Your task to perform on an android device: Go to Reddit.com Image 0: 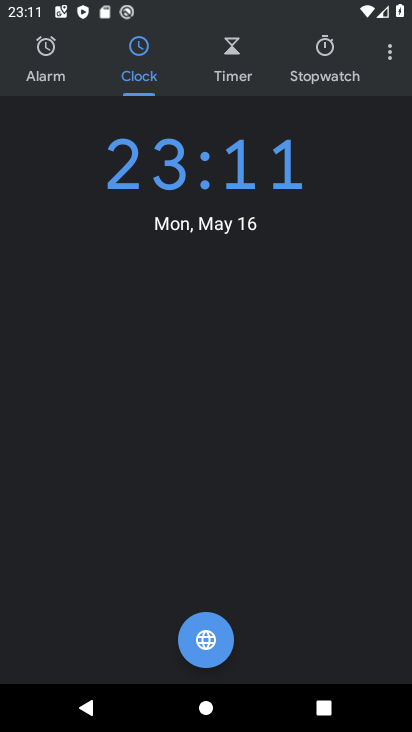
Step 0: press home button
Your task to perform on an android device: Go to Reddit.com Image 1: 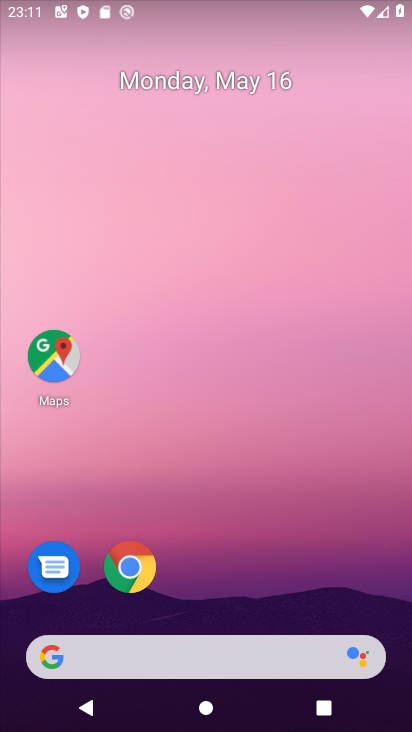
Step 1: click (129, 567)
Your task to perform on an android device: Go to Reddit.com Image 2: 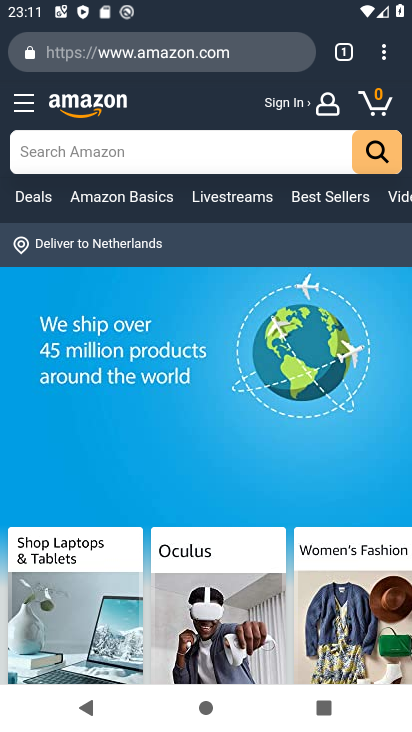
Step 2: click (379, 46)
Your task to perform on an android device: Go to Reddit.com Image 3: 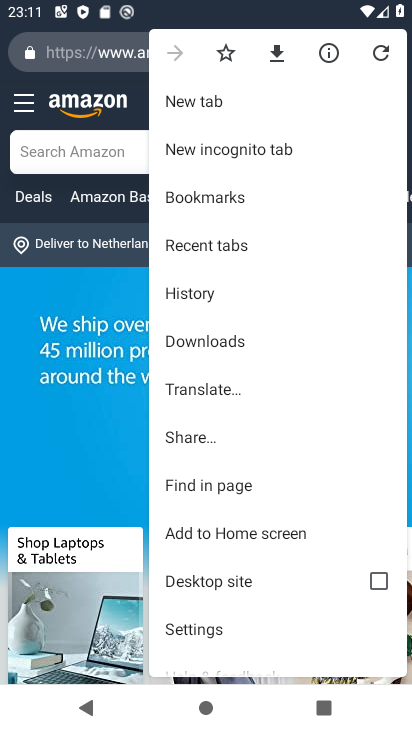
Step 3: click (199, 96)
Your task to perform on an android device: Go to Reddit.com Image 4: 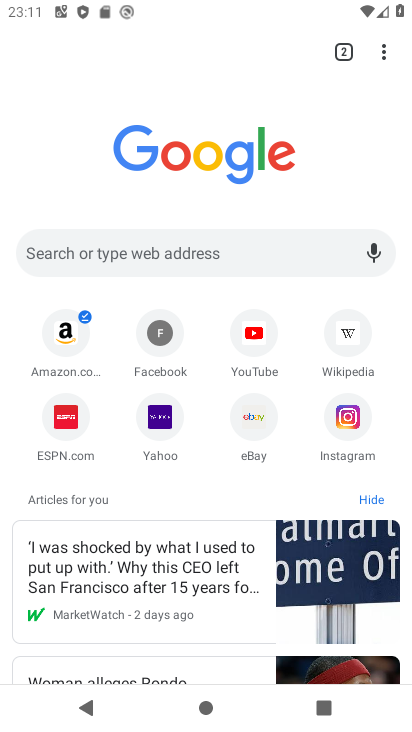
Step 4: click (183, 251)
Your task to perform on an android device: Go to Reddit.com Image 5: 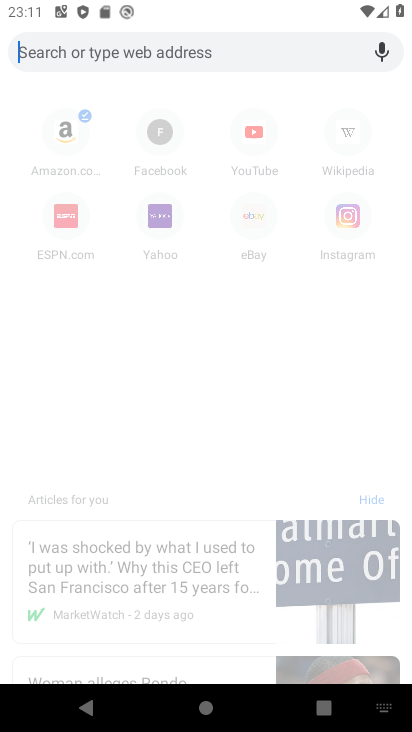
Step 5: type "reddit.com"
Your task to perform on an android device: Go to Reddit.com Image 6: 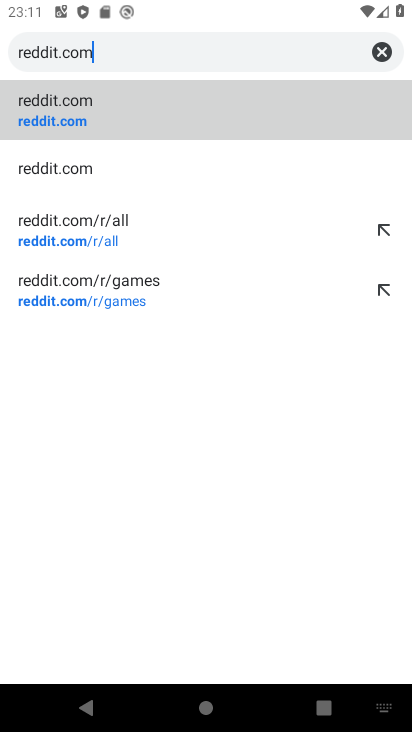
Step 6: click (100, 110)
Your task to perform on an android device: Go to Reddit.com Image 7: 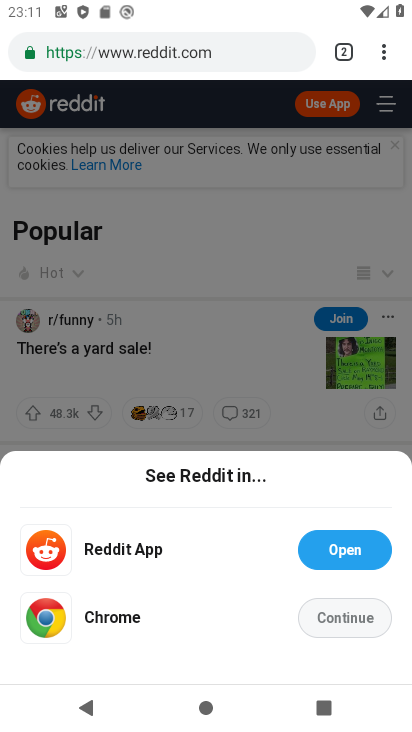
Step 7: click (340, 620)
Your task to perform on an android device: Go to Reddit.com Image 8: 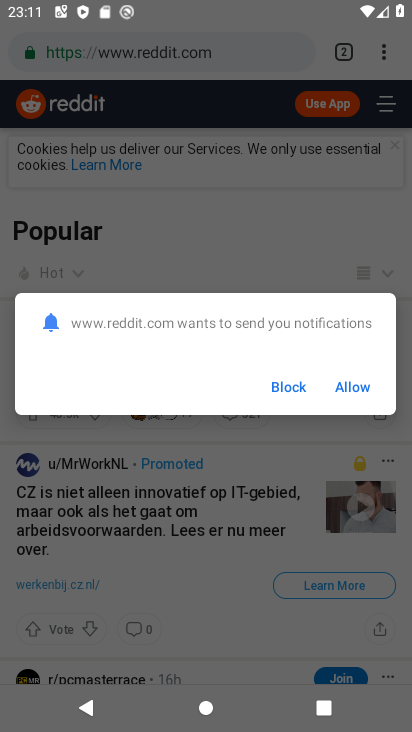
Step 8: click (355, 381)
Your task to perform on an android device: Go to Reddit.com Image 9: 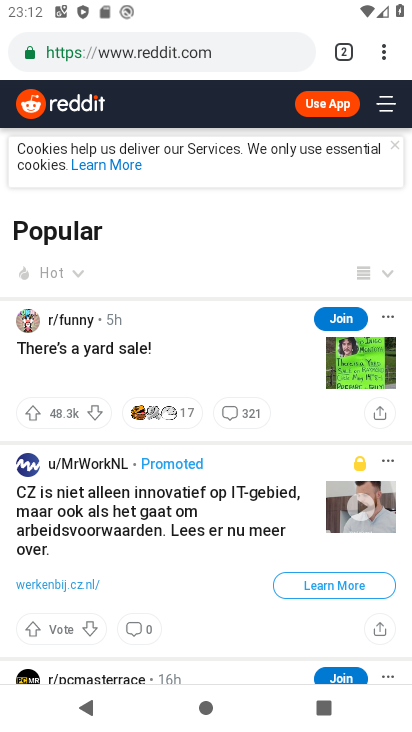
Step 9: task complete